Your task to perform on an android device: open chrome privacy settings Image 0: 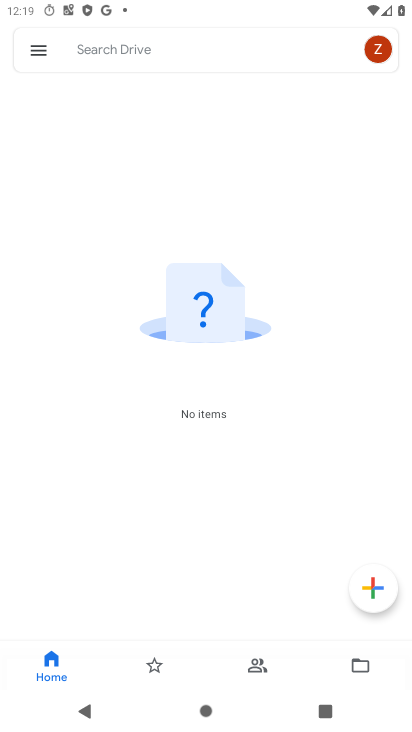
Step 0: press home button
Your task to perform on an android device: open chrome privacy settings Image 1: 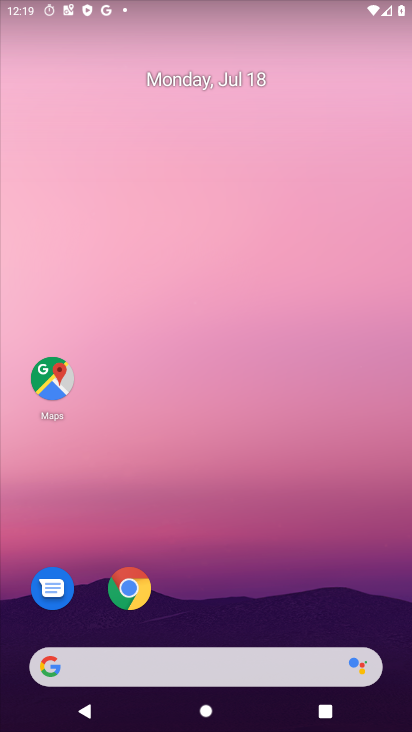
Step 1: click (131, 606)
Your task to perform on an android device: open chrome privacy settings Image 2: 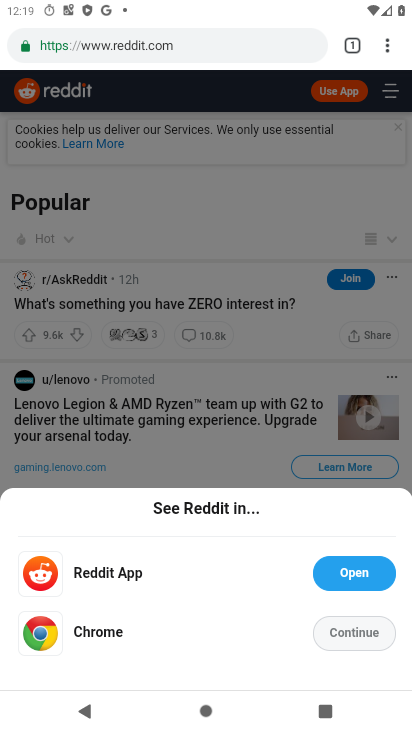
Step 2: click (380, 45)
Your task to perform on an android device: open chrome privacy settings Image 3: 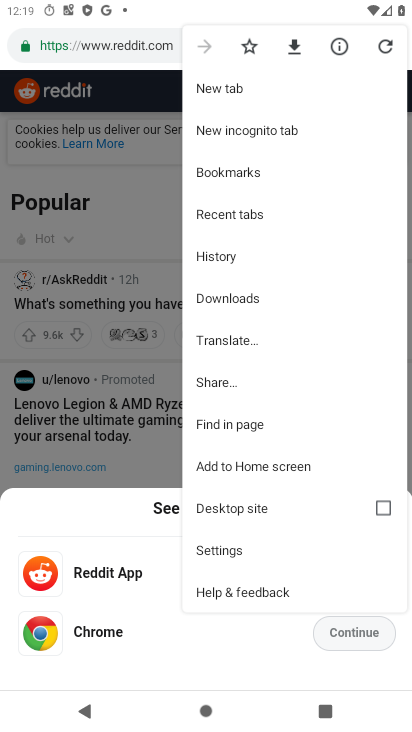
Step 3: click (223, 544)
Your task to perform on an android device: open chrome privacy settings Image 4: 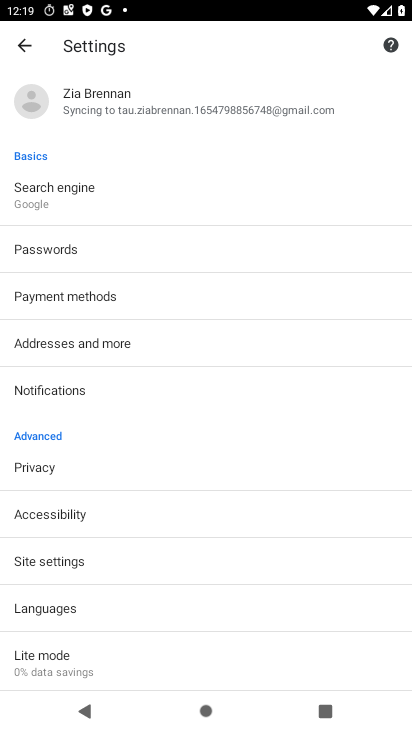
Step 4: click (47, 470)
Your task to perform on an android device: open chrome privacy settings Image 5: 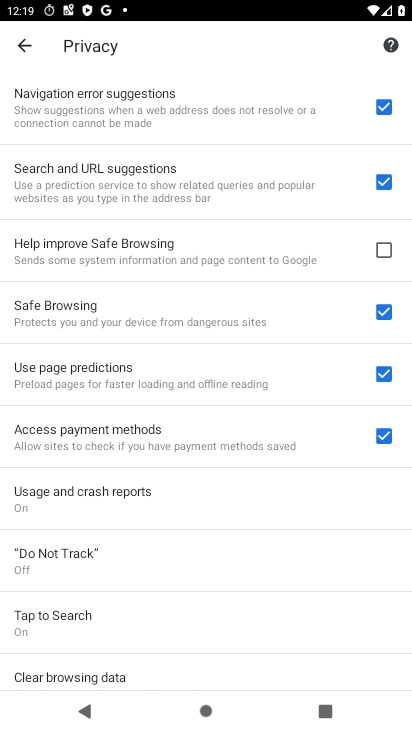
Step 5: task complete